Your task to perform on an android device: What is the recent news? Image 0: 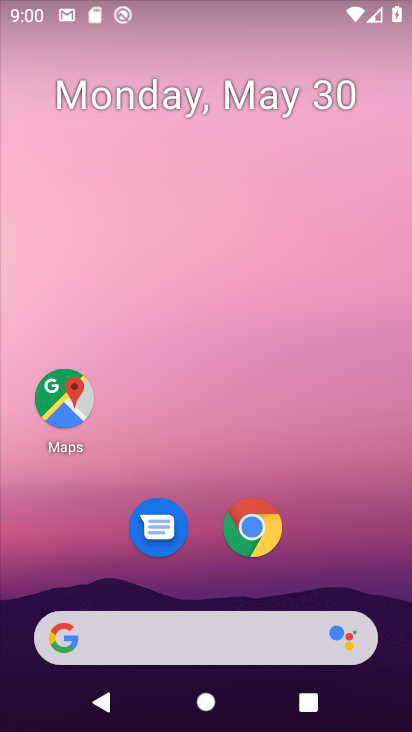
Step 0: click (189, 637)
Your task to perform on an android device: What is the recent news? Image 1: 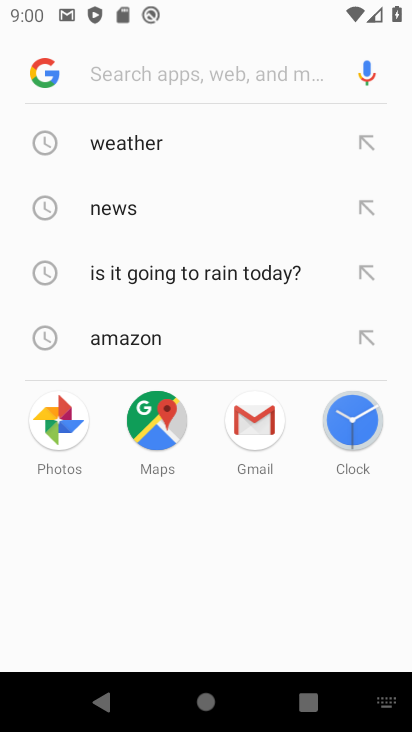
Step 1: type "what is the recent news"
Your task to perform on an android device: What is the recent news? Image 2: 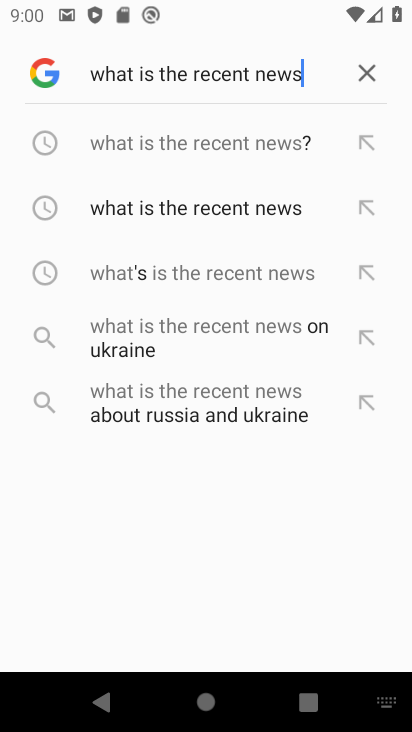
Step 2: click (153, 132)
Your task to perform on an android device: What is the recent news? Image 3: 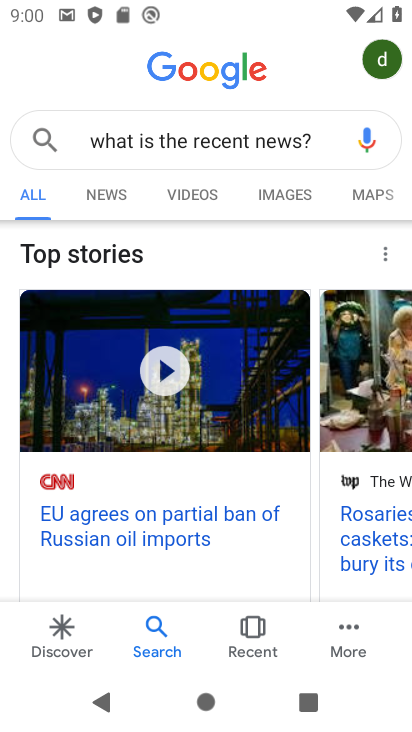
Step 3: click (105, 198)
Your task to perform on an android device: What is the recent news? Image 4: 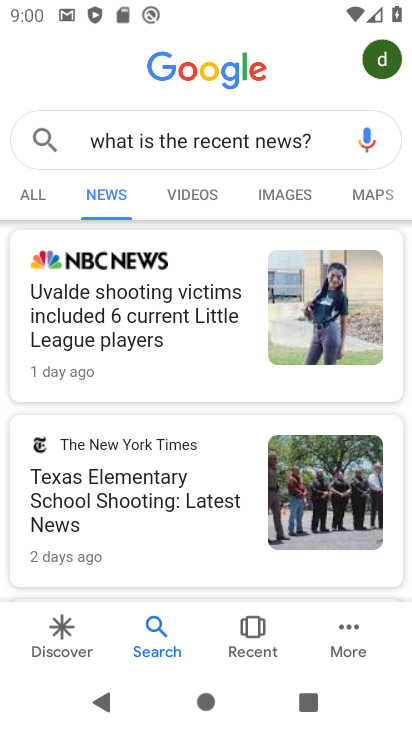
Step 4: task complete